Your task to perform on an android device: Go to Google Image 0: 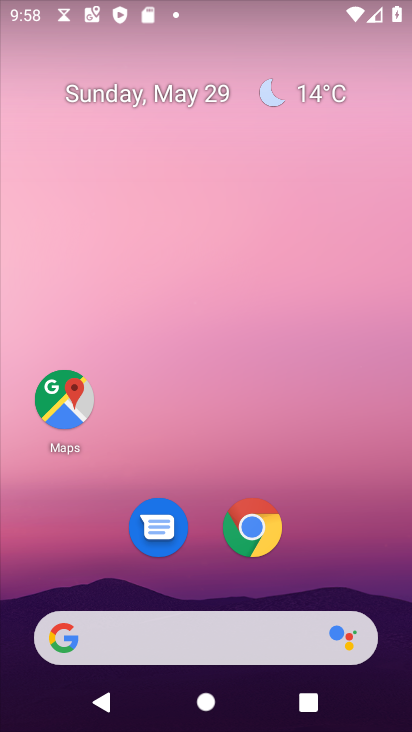
Step 0: press home button
Your task to perform on an android device: Go to Google Image 1: 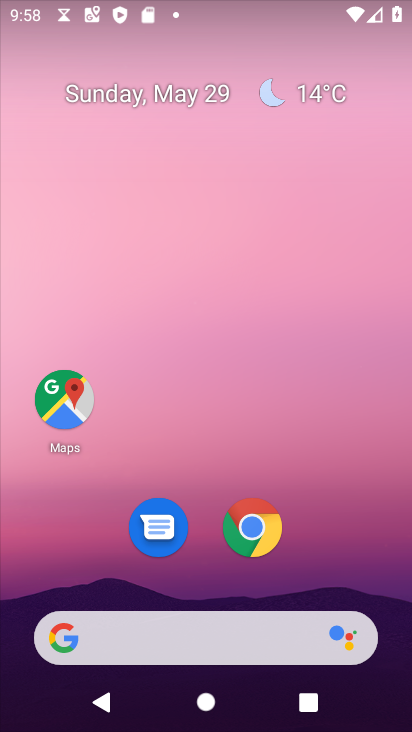
Step 1: drag from (246, 549) to (353, 54)
Your task to perform on an android device: Go to Google Image 2: 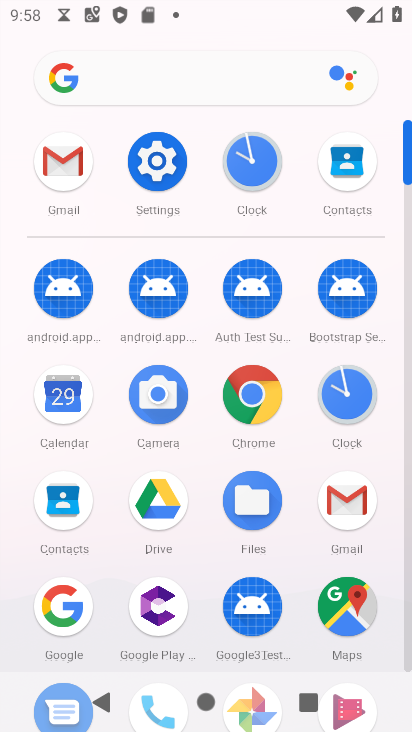
Step 2: click (80, 611)
Your task to perform on an android device: Go to Google Image 3: 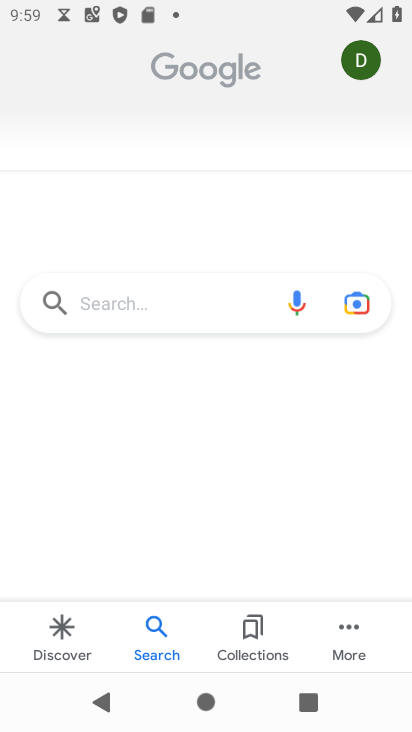
Step 3: task complete